Your task to perform on an android device: stop showing notifications on the lock screen Image 0: 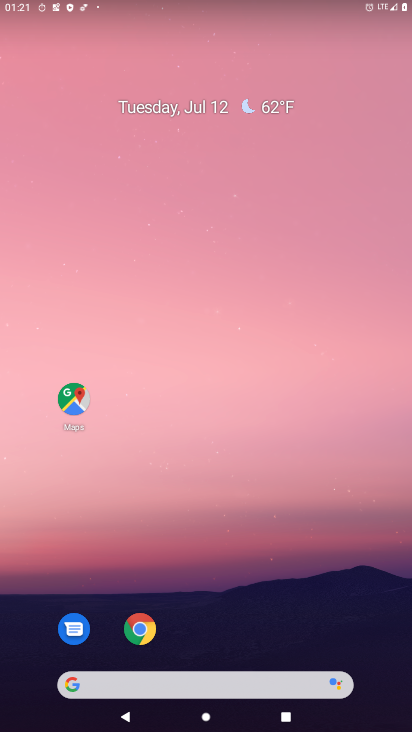
Step 0: drag from (227, 573) to (215, 17)
Your task to perform on an android device: stop showing notifications on the lock screen Image 1: 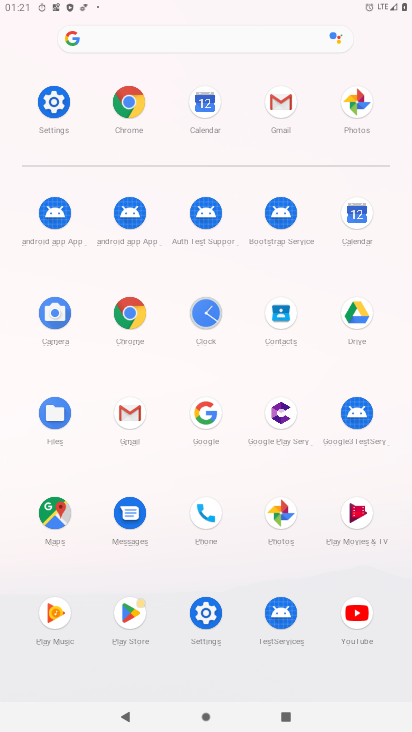
Step 1: click (204, 610)
Your task to perform on an android device: stop showing notifications on the lock screen Image 2: 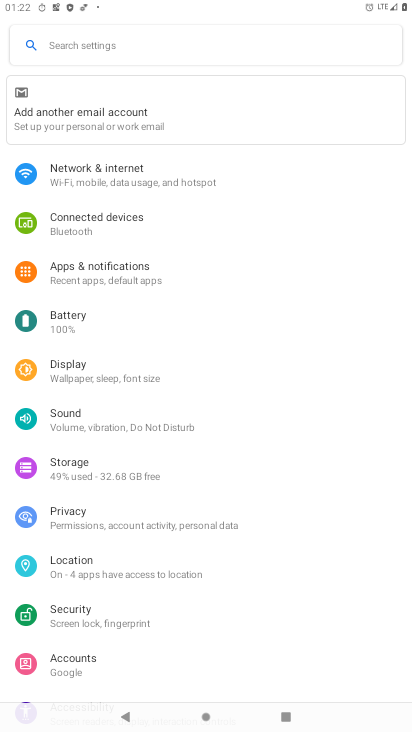
Step 2: click (111, 279)
Your task to perform on an android device: stop showing notifications on the lock screen Image 3: 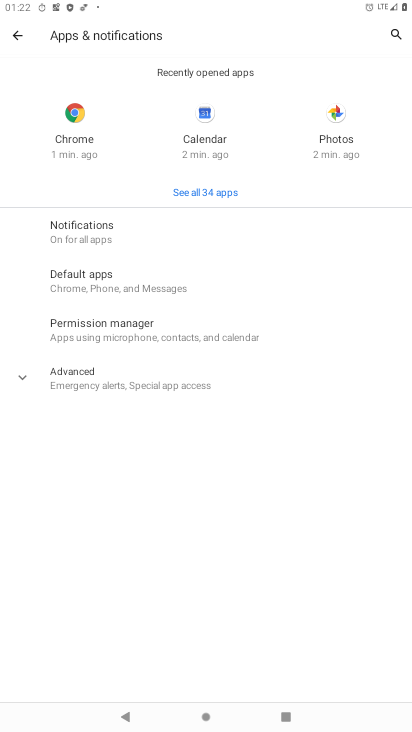
Step 3: click (159, 380)
Your task to perform on an android device: stop showing notifications on the lock screen Image 4: 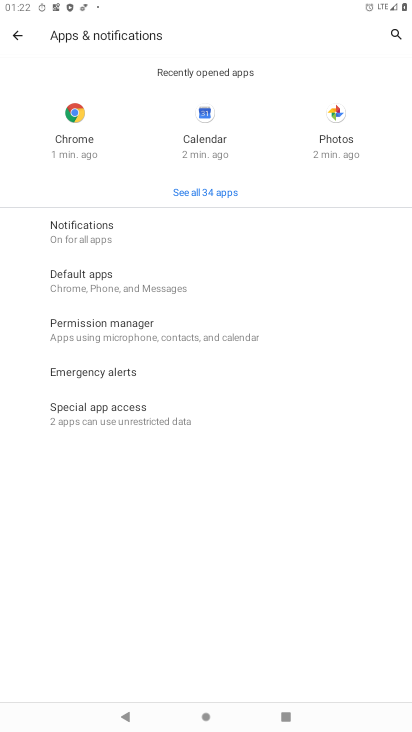
Step 4: click (61, 224)
Your task to perform on an android device: stop showing notifications on the lock screen Image 5: 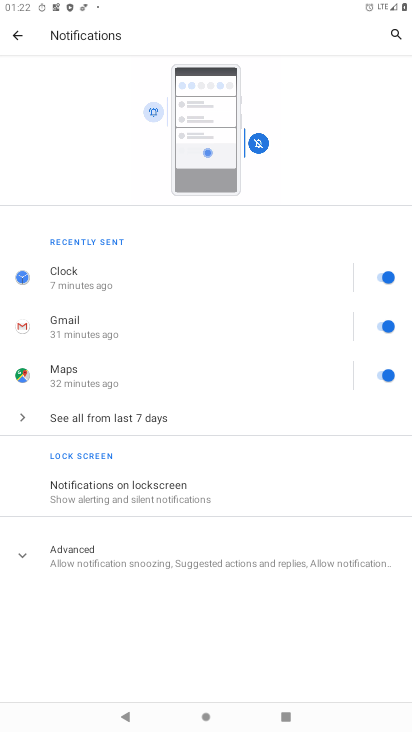
Step 5: click (180, 506)
Your task to perform on an android device: stop showing notifications on the lock screen Image 6: 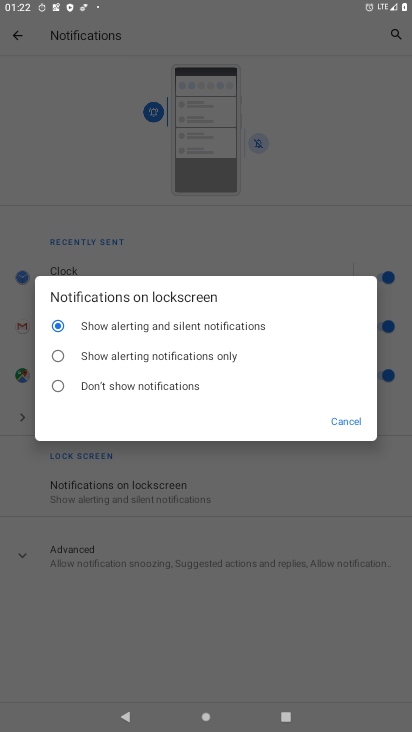
Step 6: click (129, 387)
Your task to perform on an android device: stop showing notifications on the lock screen Image 7: 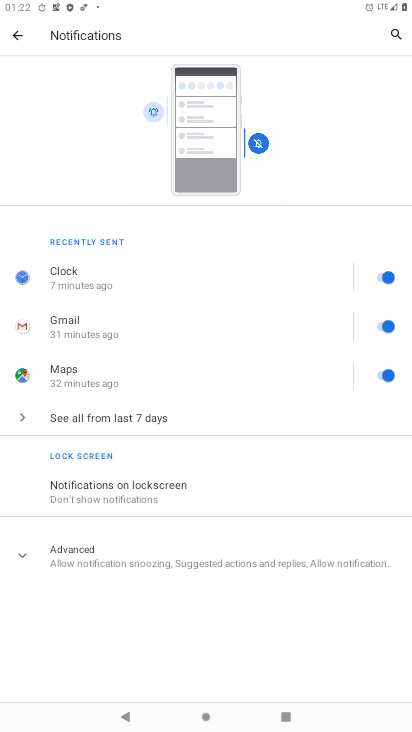
Step 7: task complete